Your task to perform on an android device: Open battery settings Image 0: 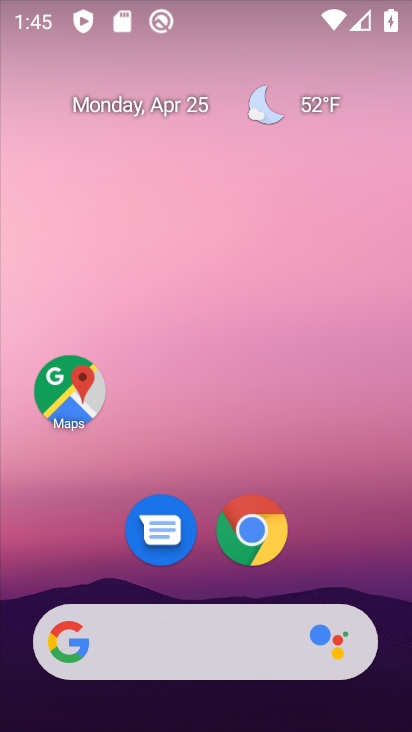
Step 0: drag from (378, 433) to (378, 188)
Your task to perform on an android device: Open battery settings Image 1: 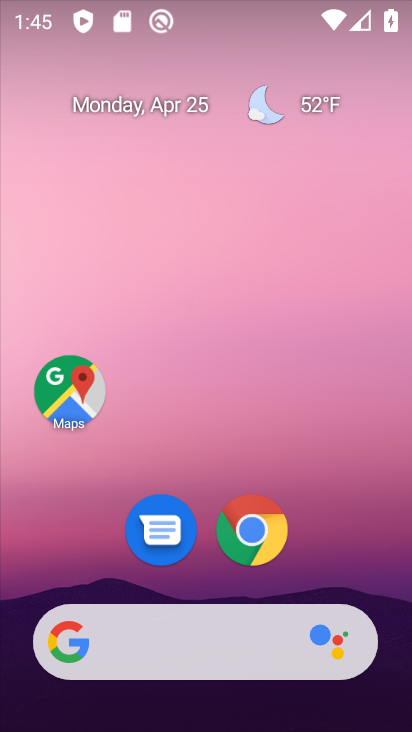
Step 1: drag from (383, 625) to (401, 86)
Your task to perform on an android device: Open battery settings Image 2: 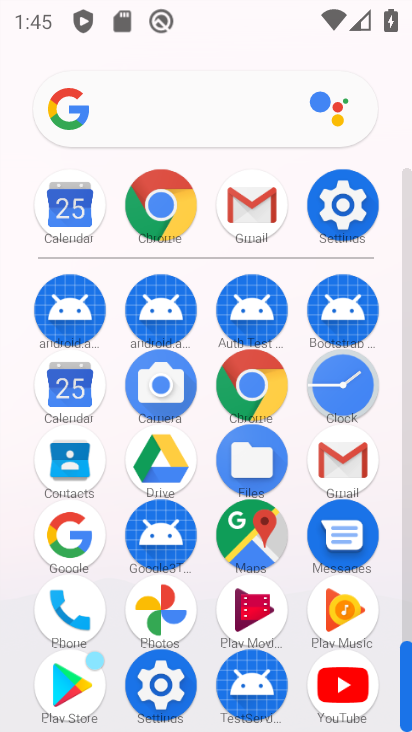
Step 2: click (187, 669)
Your task to perform on an android device: Open battery settings Image 3: 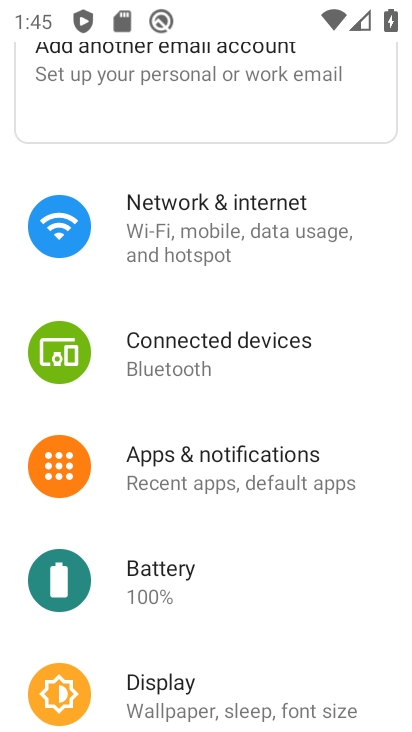
Step 3: click (194, 572)
Your task to perform on an android device: Open battery settings Image 4: 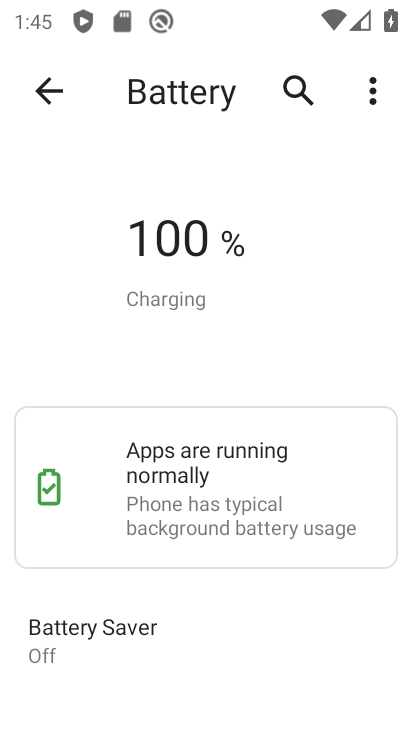
Step 4: click (372, 99)
Your task to perform on an android device: Open battery settings Image 5: 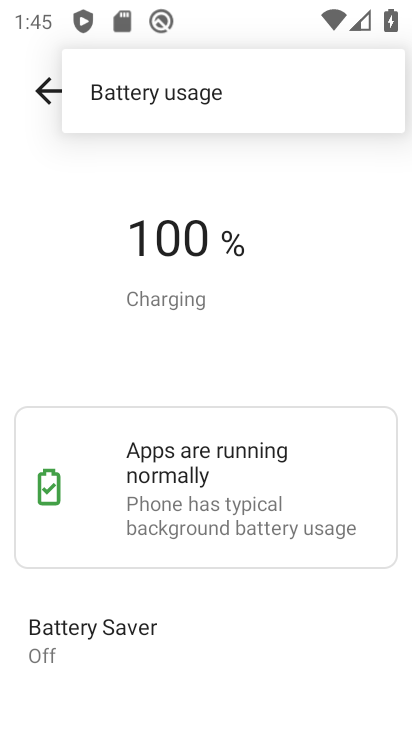
Step 5: task complete